Your task to perform on an android device: change the clock style Image 0: 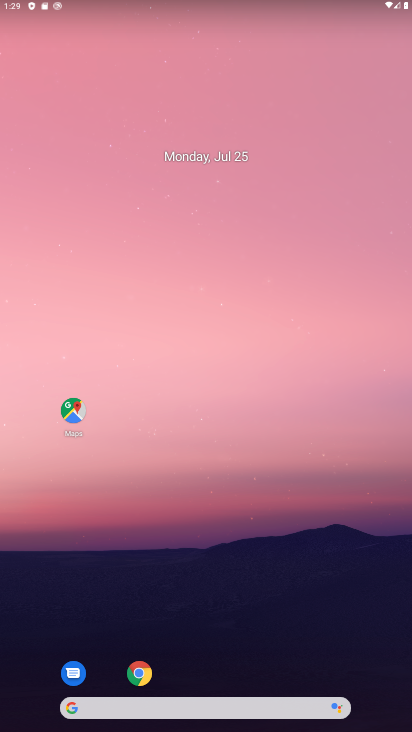
Step 0: drag from (223, 670) to (188, 184)
Your task to perform on an android device: change the clock style Image 1: 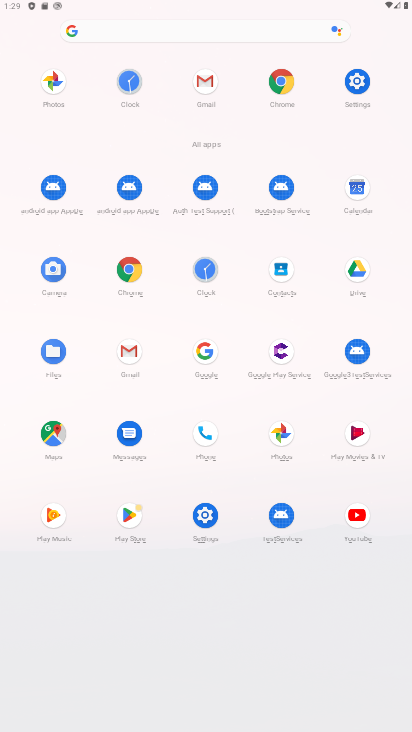
Step 1: click (129, 89)
Your task to perform on an android device: change the clock style Image 2: 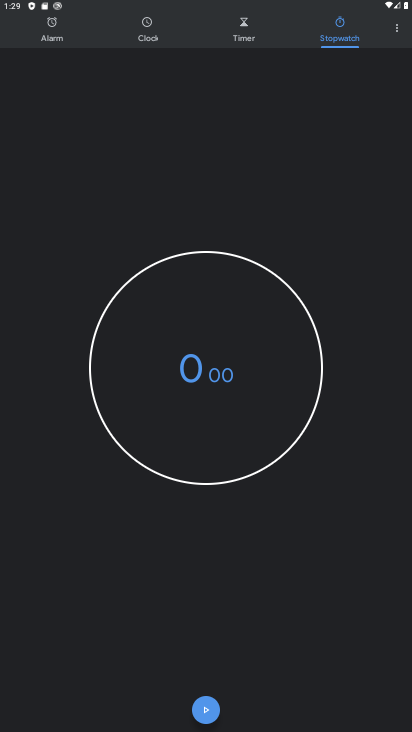
Step 2: click (401, 30)
Your task to perform on an android device: change the clock style Image 3: 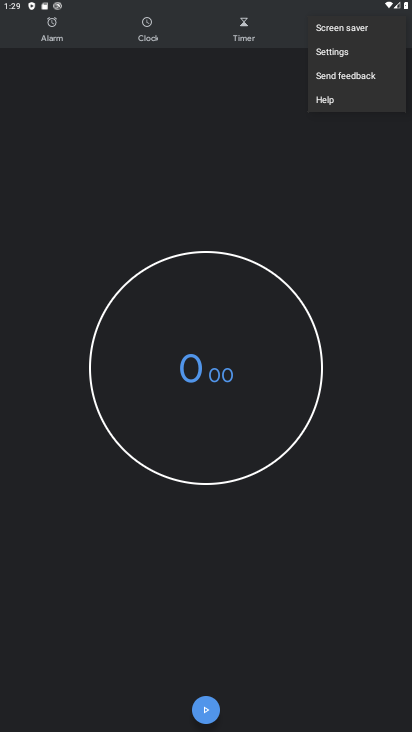
Step 3: click (363, 49)
Your task to perform on an android device: change the clock style Image 4: 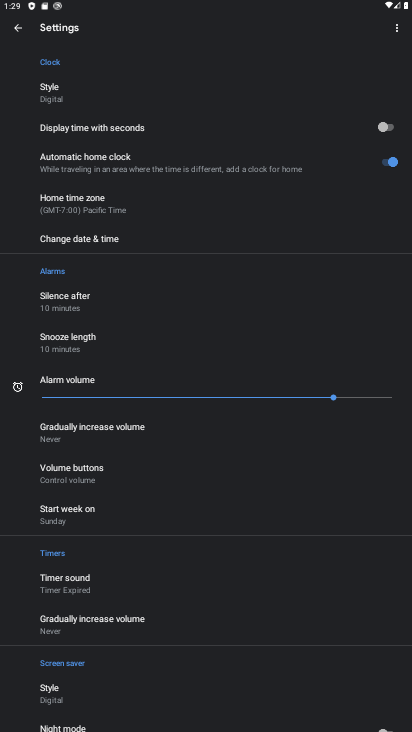
Step 4: click (84, 93)
Your task to perform on an android device: change the clock style Image 5: 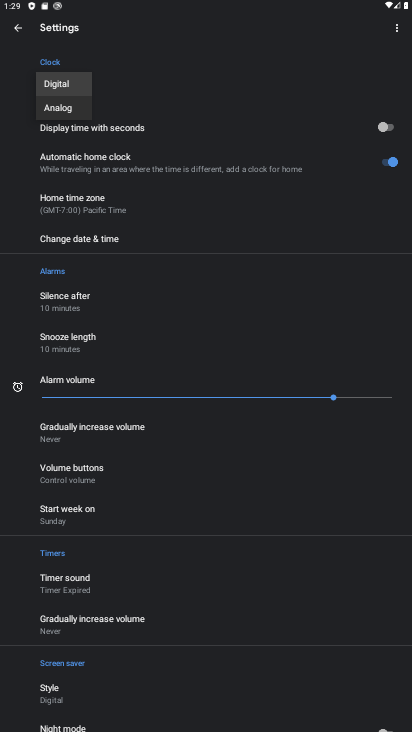
Step 5: click (65, 104)
Your task to perform on an android device: change the clock style Image 6: 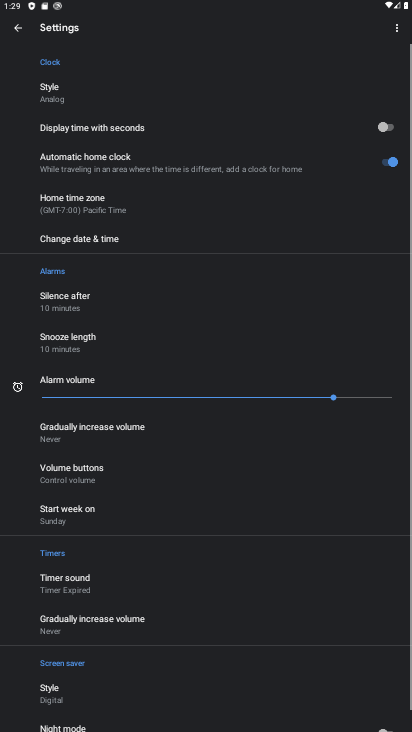
Step 6: task complete